Your task to perform on an android device: Check the weather Image 0: 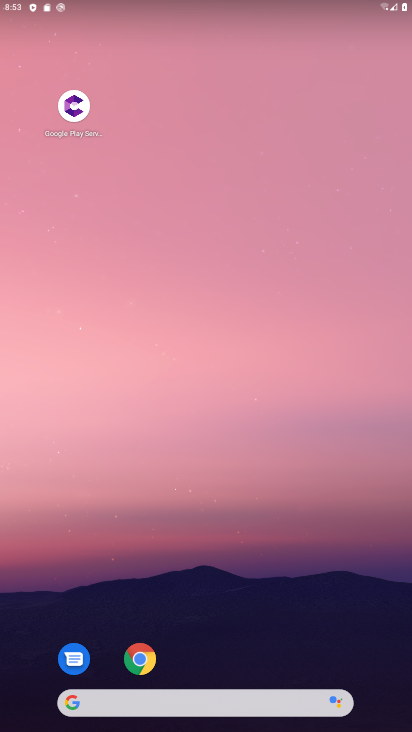
Step 0: click (140, 658)
Your task to perform on an android device: Check the weather Image 1: 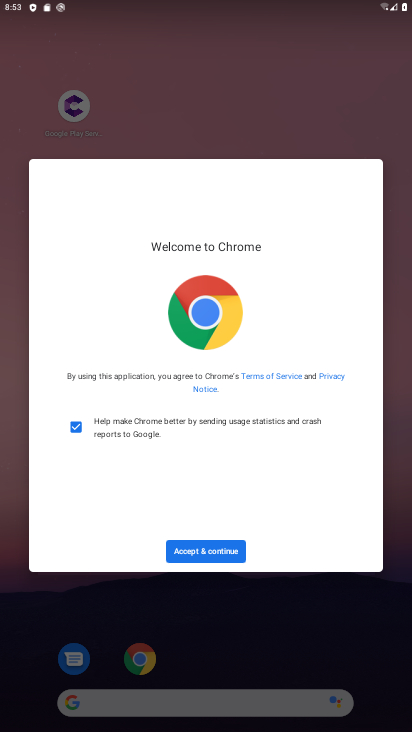
Step 1: click (183, 544)
Your task to perform on an android device: Check the weather Image 2: 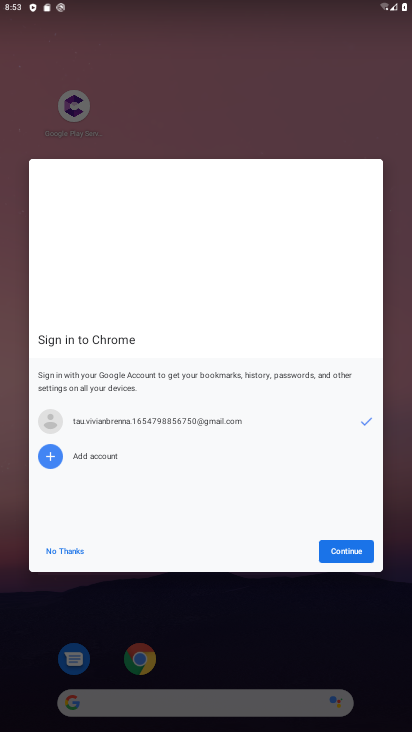
Step 2: click (321, 550)
Your task to perform on an android device: Check the weather Image 3: 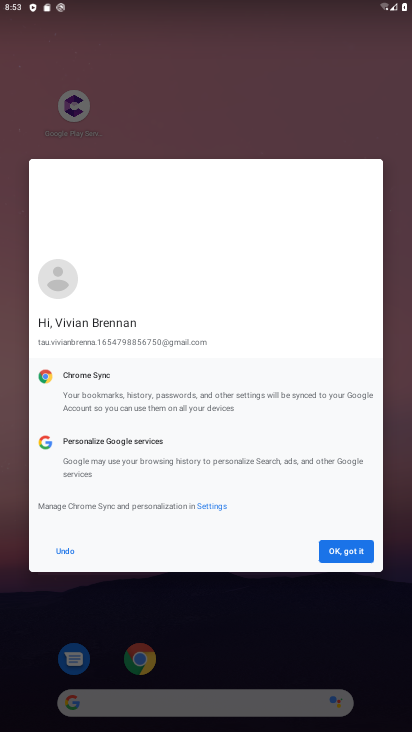
Step 3: click (333, 553)
Your task to perform on an android device: Check the weather Image 4: 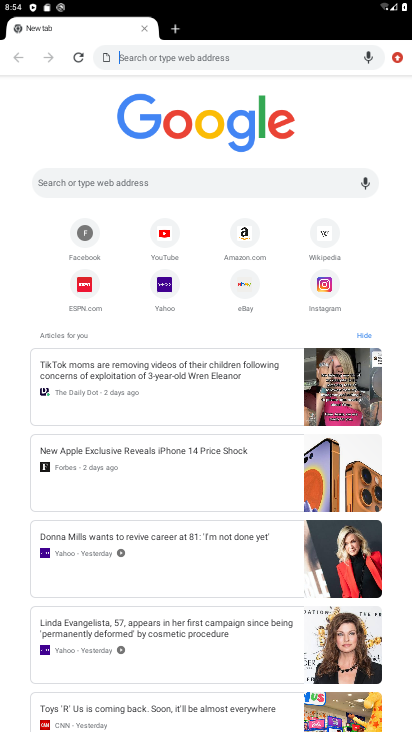
Step 4: click (166, 178)
Your task to perform on an android device: Check the weather Image 5: 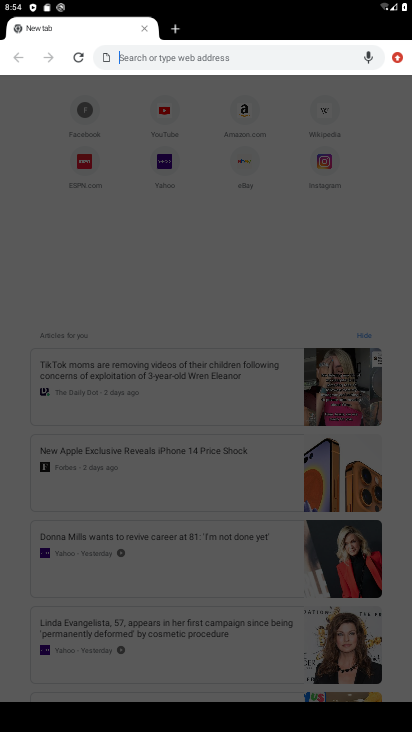
Step 5: type "Check the weather"
Your task to perform on an android device: Check the weather Image 6: 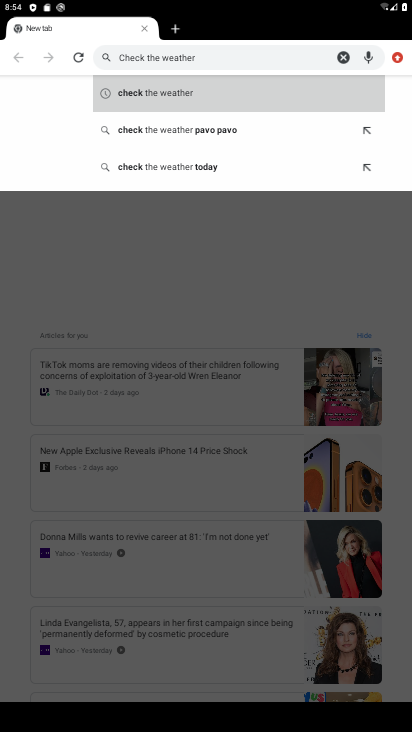
Step 6: click (200, 93)
Your task to perform on an android device: Check the weather Image 7: 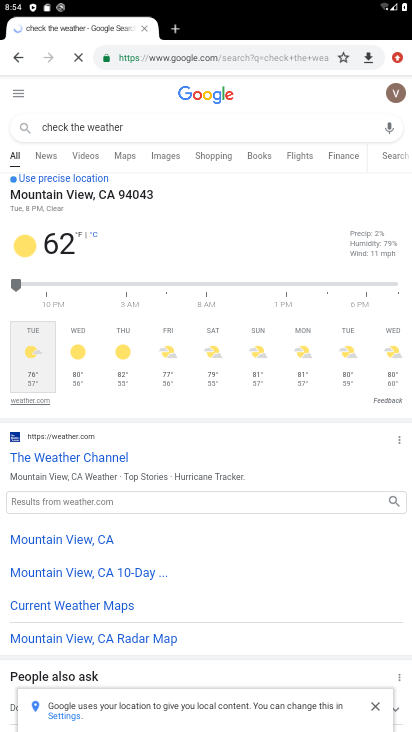
Step 7: task complete